Your task to perform on an android device: open device folders in google photos Image 0: 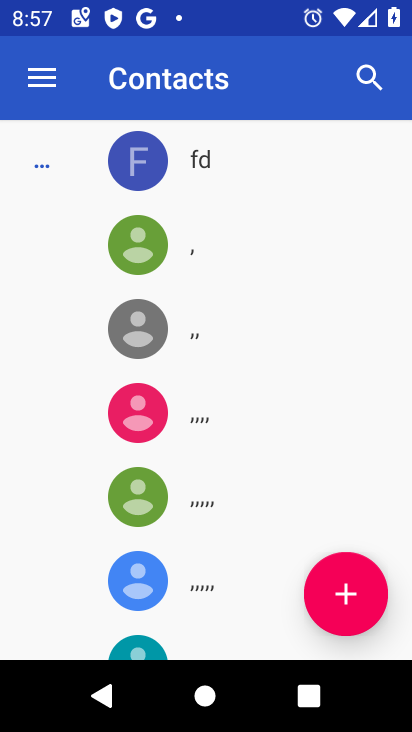
Step 0: press home button
Your task to perform on an android device: open device folders in google photos Image 1: 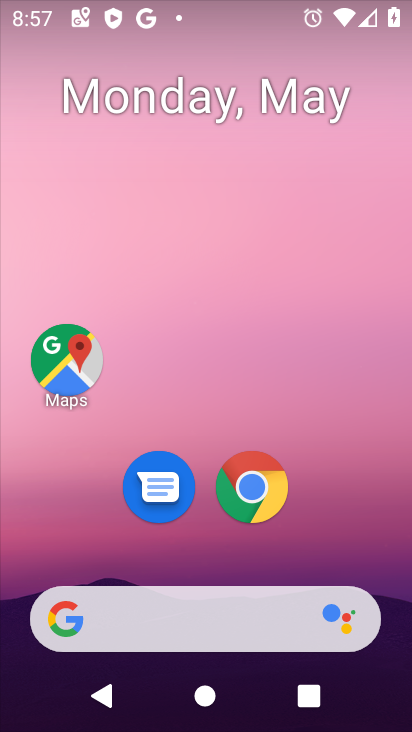
Step 1: drag from (222, 552) to (232, 155)
Your task to perform on an android device: open device folders in google photos Image 2: 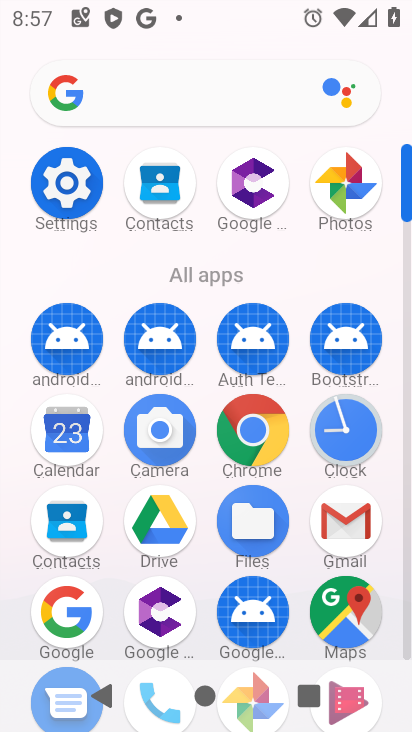
Step 2: click (340, 189)
Your task to perform on an android device: open device folders in google photos Image 3: 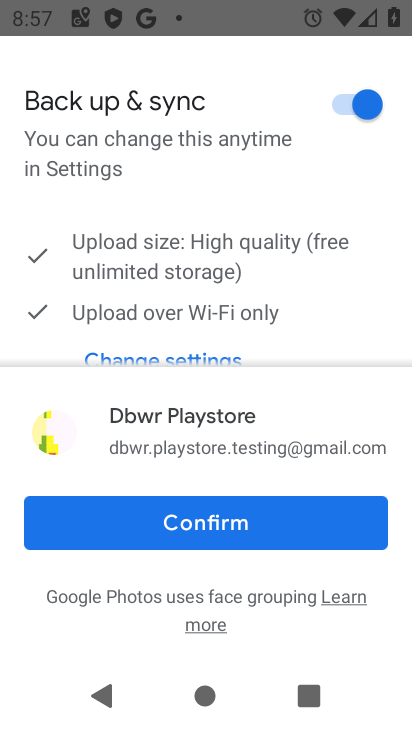
Step 3: click (284, 522)
Your task to perform on an android device: open device folders in google photos Image 4: 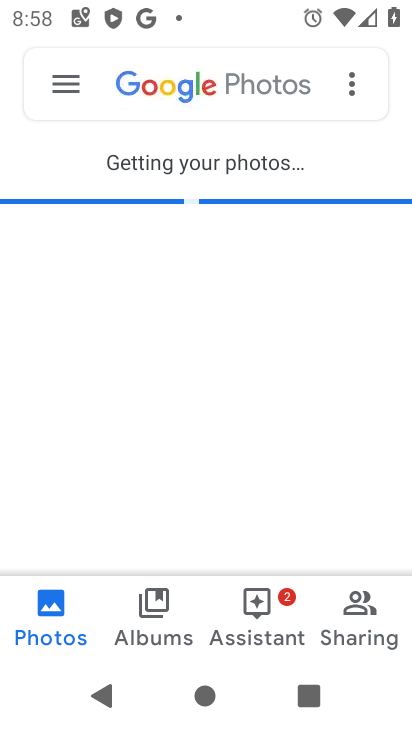
Step 4: click (74, 90)
Your task to perform on an android device: open device folders in google photos Image 5: 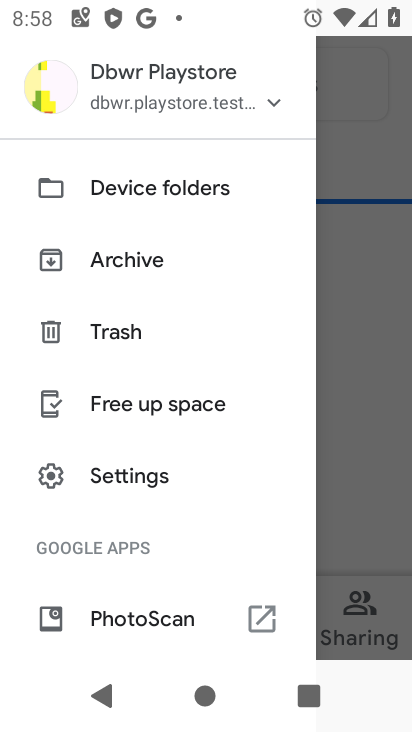
Step 5: click (204, 186)
Your task to perform on an android device: open device folders in google photos Image 6: 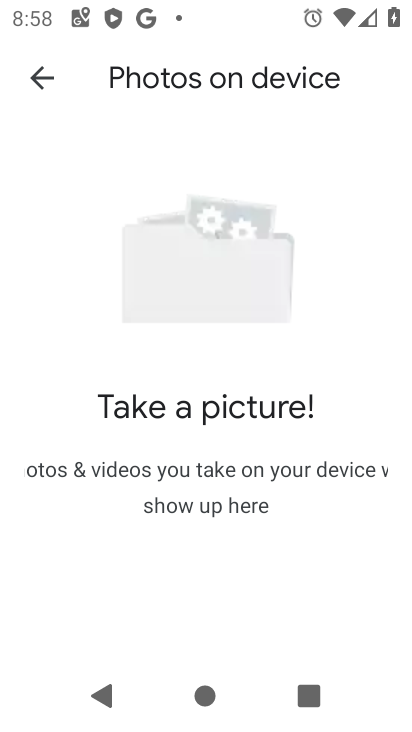
Step 6: task complete